Your task to perform on an android device: open app "DoorDash - Food Delivery" Image 0: 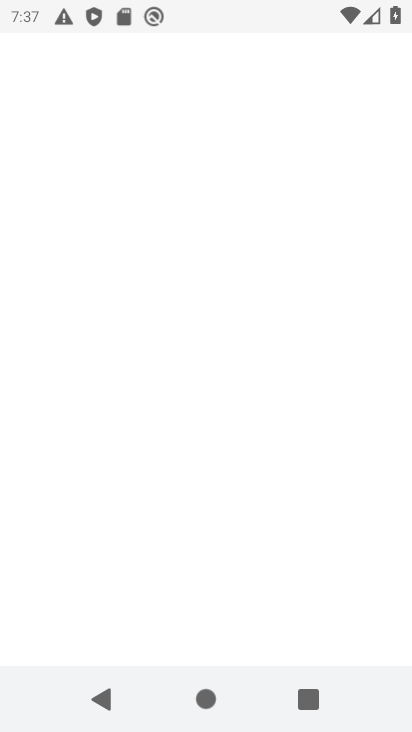
Step 0: press home button
Your task to perform on an android device: open app "DoorDash - Food Delivery" Image 1: 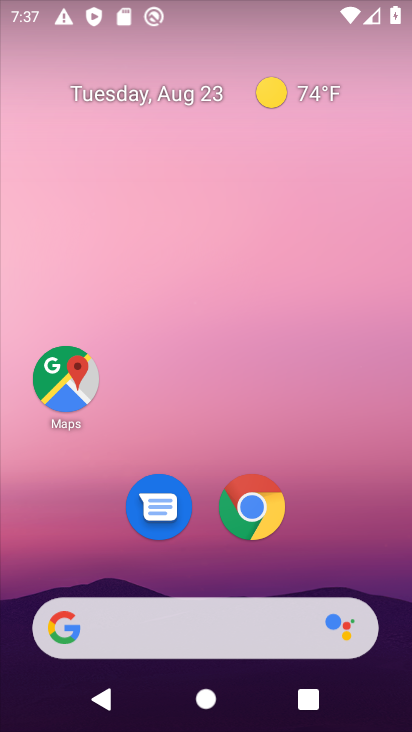
Step 1: drag from (191, 595) to (132, 120)
Your task to perform on an android device: open app "DoorDash - Food Delivery" Image 2: 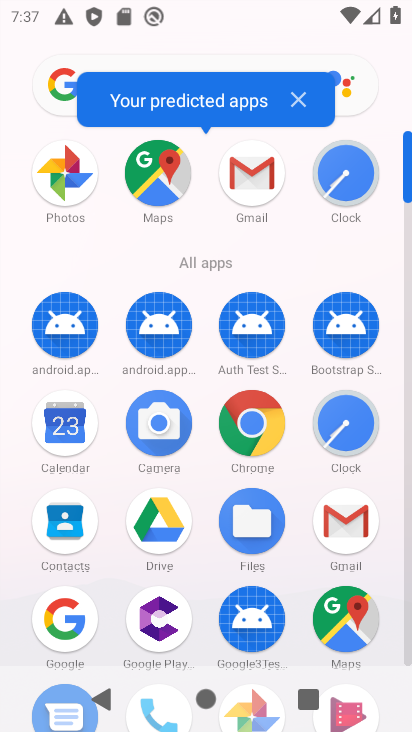
Step 2: drag from (180, 494) to (172, 200)
Your task to perform on an android device: open app "DoorDash - Food Delivery" Image 3: 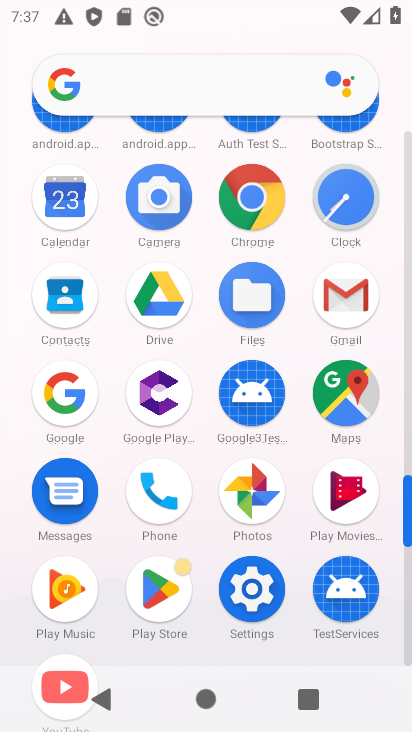
Step 3: click (150, 586)
Your task to perform on an android device: open app "DoorDash - Food Delivery" Image 4: 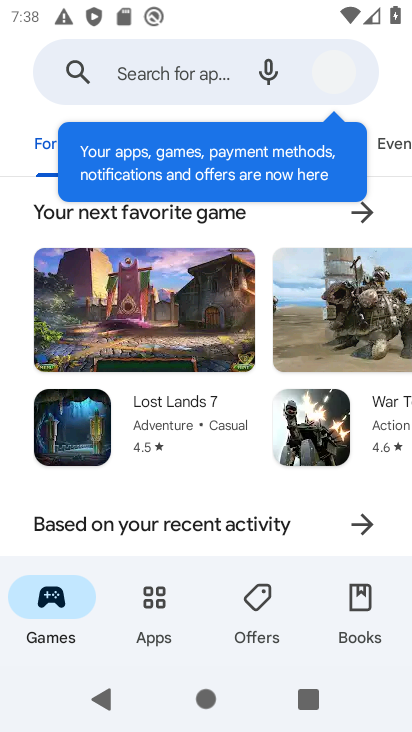
Step 4: click (147, 84)
Your task to perform on an android device: open app "DoorDash - Food Delivery" Image 5: 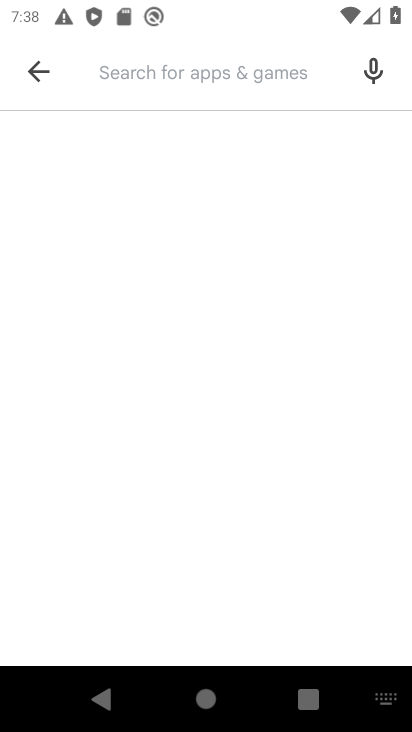
Step 5: type "DoorDash - Food Delivery"
Your task to perform on an android device: open app "DoorDash - Food Delivery" Image 6: 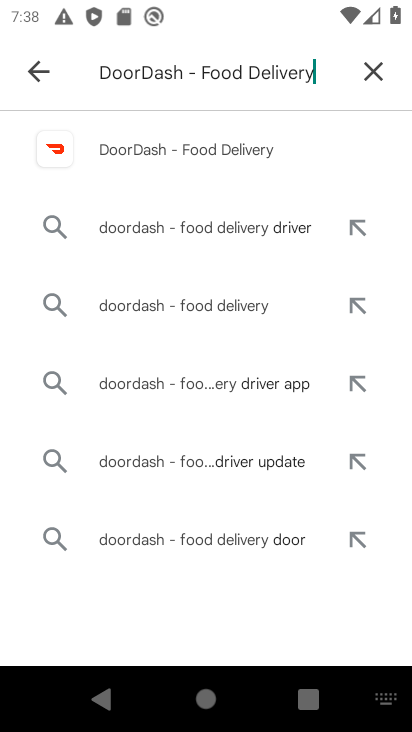
Step 6: click (213, 159)
Your task to perform on an android device: open app "DoorDash - Food Delivery" Image 7: 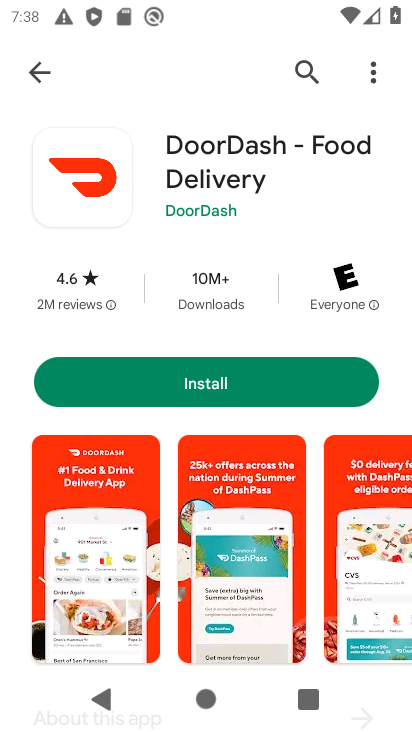
Step 7: click (192, 386)
Your task to perform on an android device: open app "DoorDash - Food Delivery" Image 8: 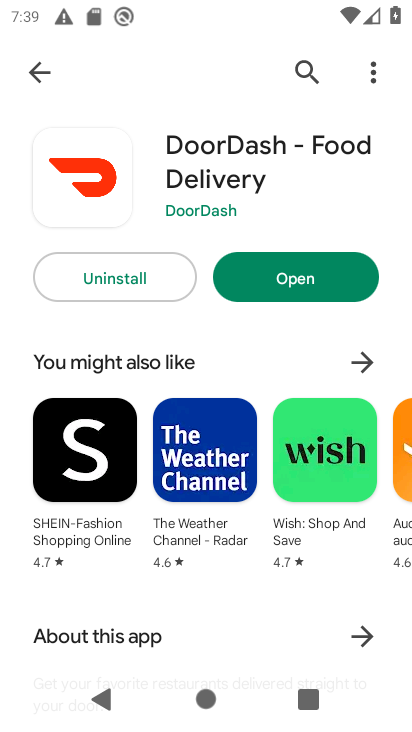
Step 8: click (289, 280)
Your task to perform on an android device: open app "DoorDash - Food Delivery" Image 9: 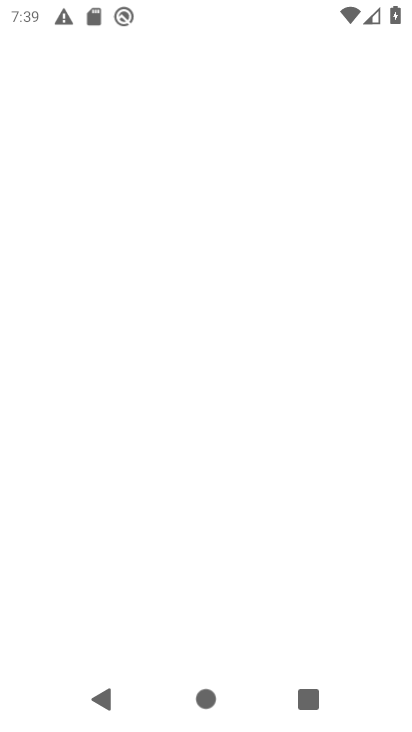
Step 9: task complete